Your task to perform on an android device: What is the recent news? Image 0: 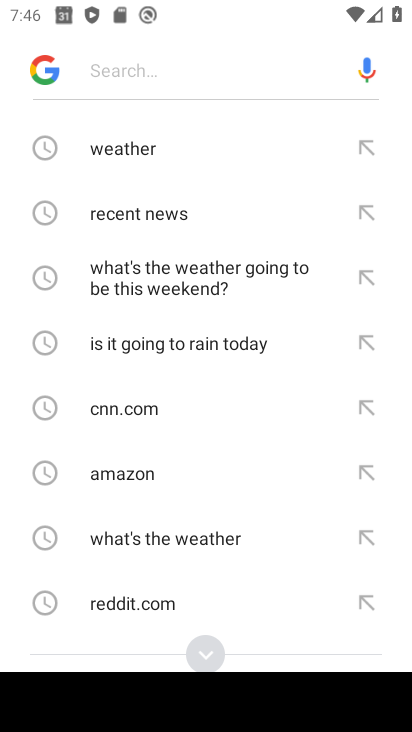
Step 0: press home button
Your task to perform on an android device: What is the recent news? Image 1: 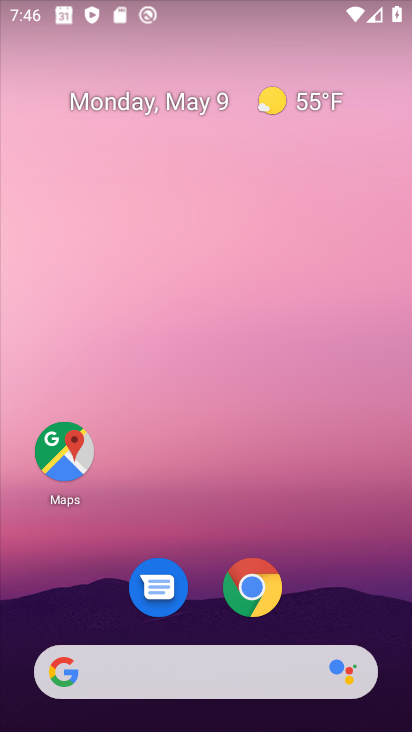
Step 1: task complete